Your task to perform on an android device: turn off priority inbox in the gmail app Image 0: 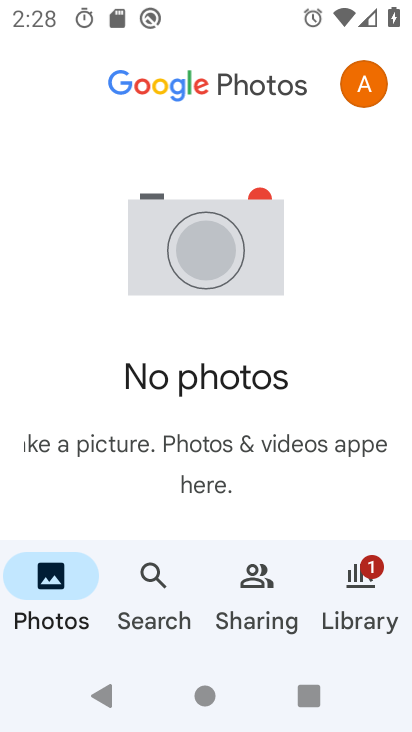
Step 0: press home button
Your task to perform on an android device: turn off priority inbox in the gmail app Image 1: 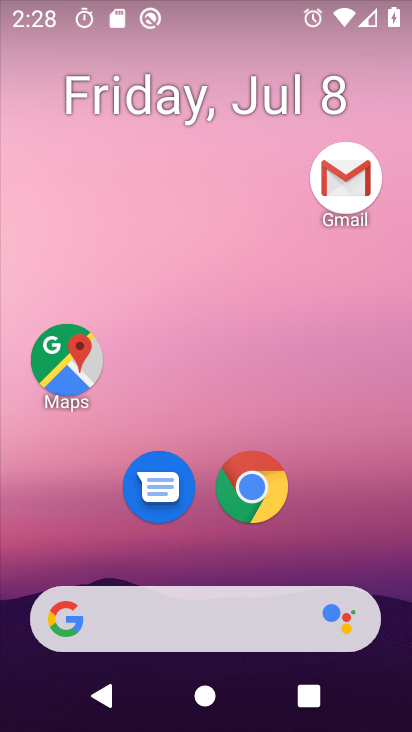
Step 1: drag from (342, 508) to (363, 113)
Your task to perform on an android device: turn off priority inbox in the gmail app Image 2: 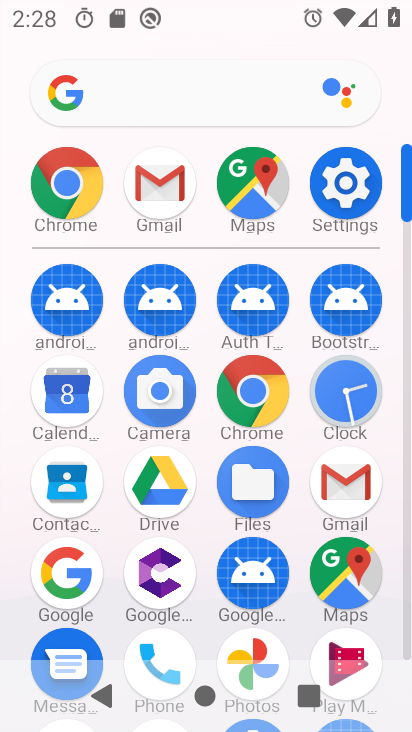
Step 2: click (367, 478)
Your task to perform on an android device: turn off priority inbox in the gmail app Image 3: 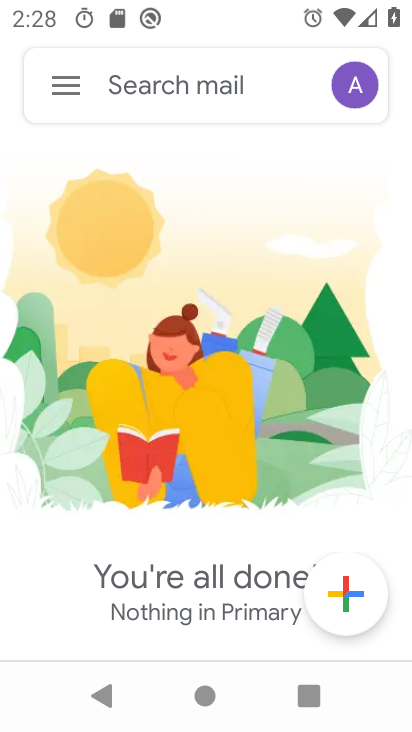
Step 3: click (58, 69)
Your task to perform on an android device: turn off priority inbox in the gmail app Image 4: 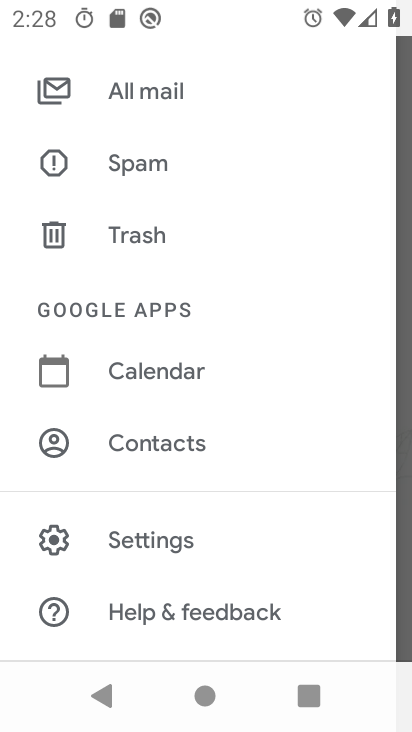
Step 4: click (230, 533)
Your task to perform on an android device: turn off priority inbox in the gmail app Image 5: 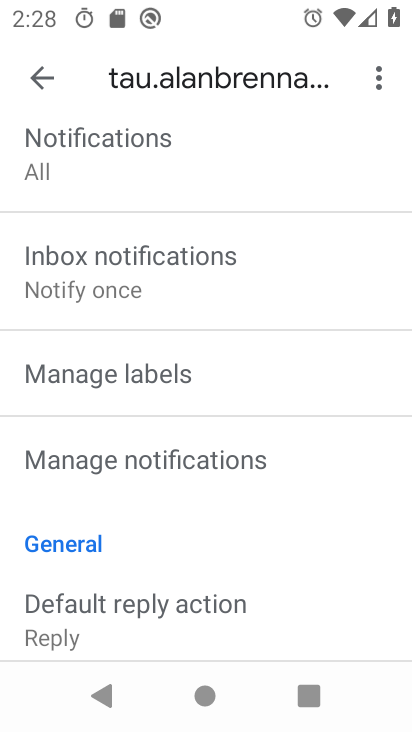
Step 5: task complete